Your task to perform on an android device: set an alarm Image 0: 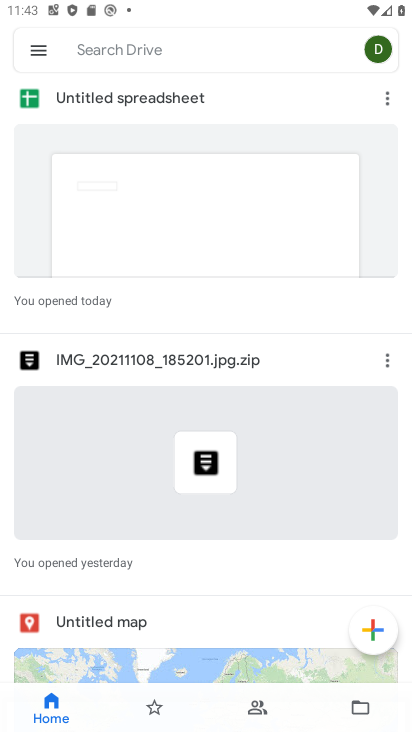
Step 0: press home button
Your task to perform on an android device: set an alarm Image 1: 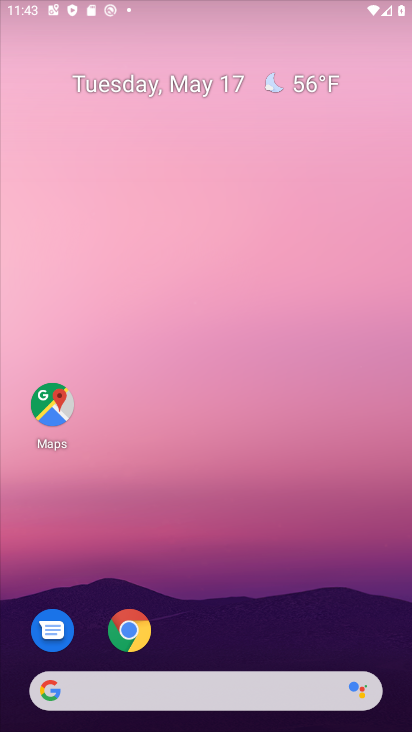
Step 1: drag from (365, 618) to (313, 154)
Your task to perform on an android device: set an alarm Image 2: 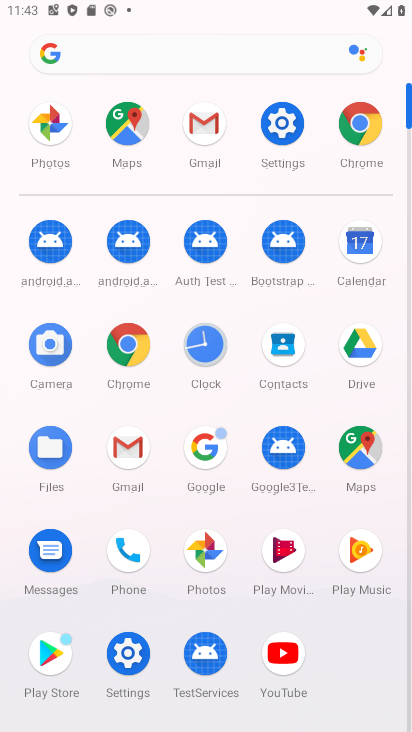
Step 2: click (195, 343)
Your task to perform on an android device: set an alarm Image 3: 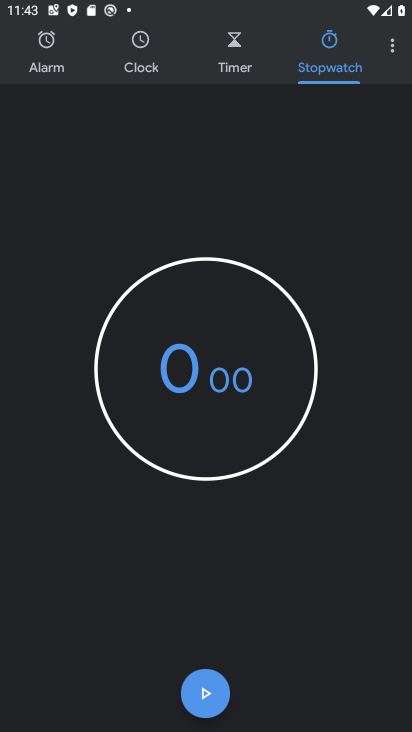
Step 3: click (37, 48)
Your task to perform on an android device: set an alarm Image 4: 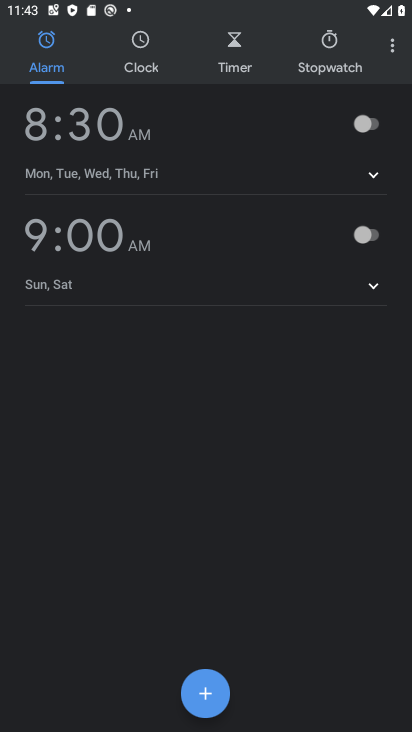
Step 4: click (192, 687)
Your task to perform on an android device: set an alarm Image 5: 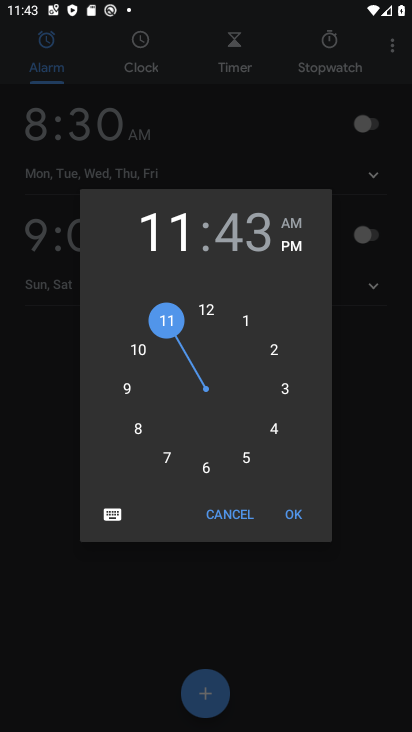
Step 5: click (308, 527)
Your task to perform on an android device: set an alarm Image 6: 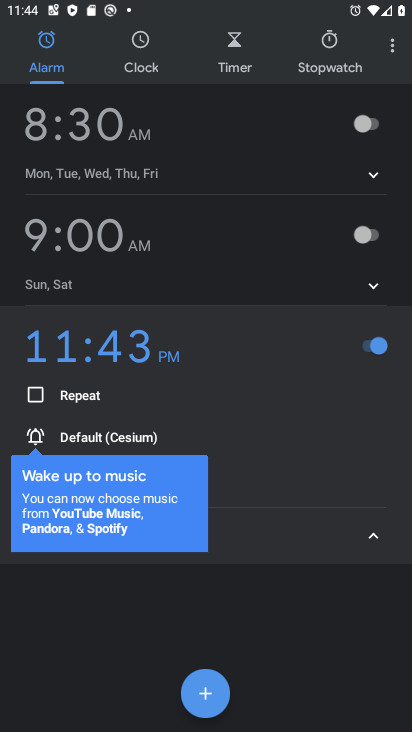
Step 6: task complete